Your task to perform on an android device: Open Google Chrome Image 0: 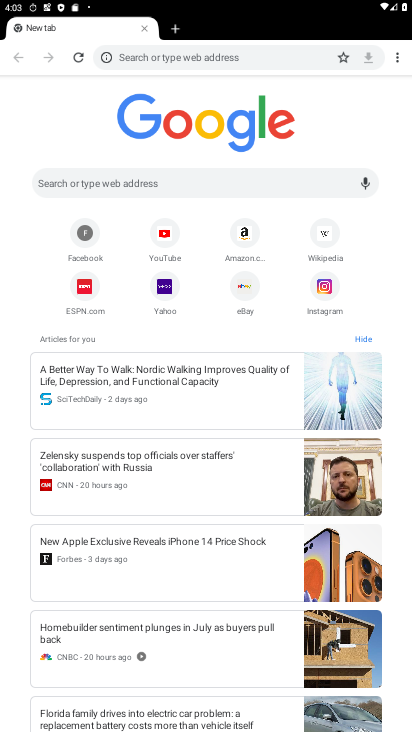
Step 0: press home button
Your task to perform on an android device: Open Google Chrome Image 1: 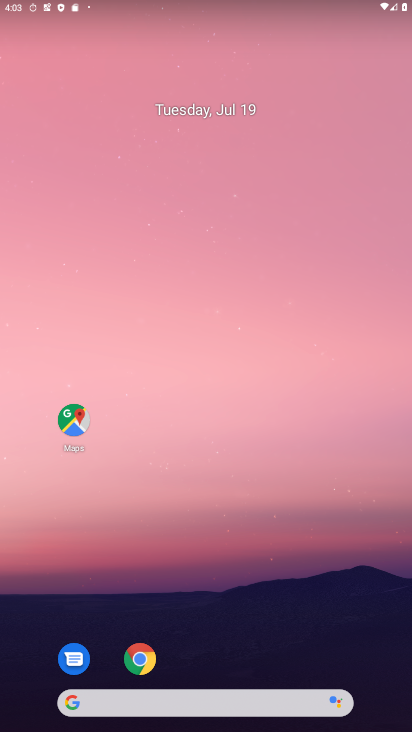
Step 1: drag from (304, 610) to (343, 81)
Your task to perform on an android device: Open Google Chrome Image 2: 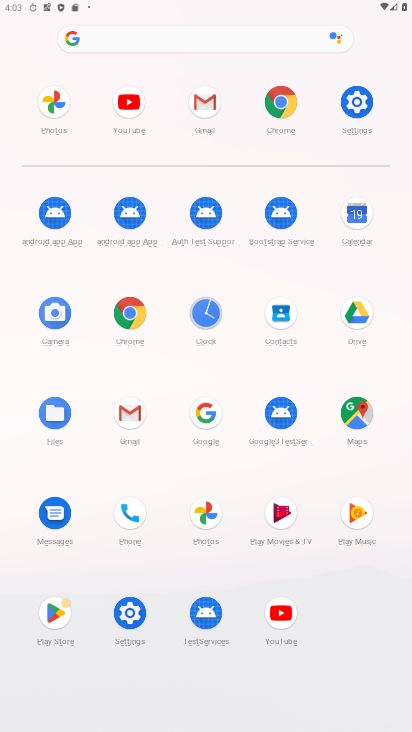
Step 2: click (284, 109)
Your task to perform on an android device: Open Google Chrome Image 3: 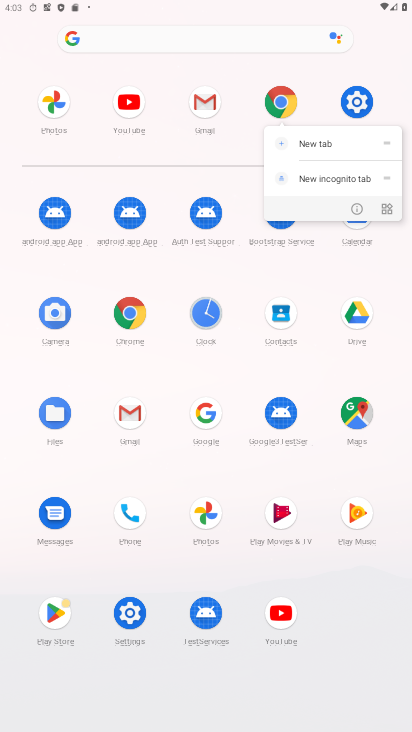
Step 3: click (284, 108)
Your task to perform on an android device: Open Google Chrome Image 4: 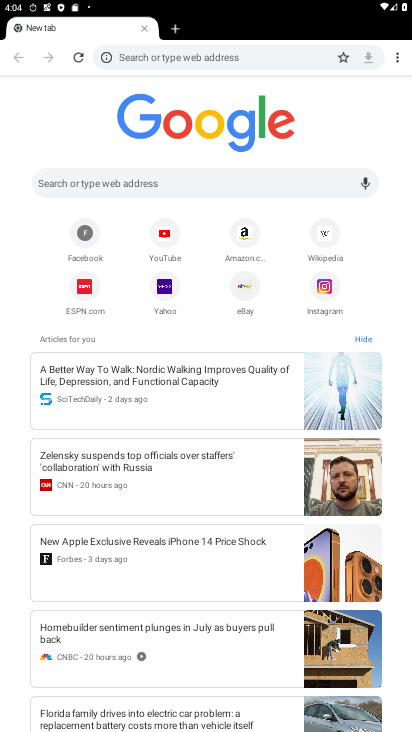
Step 4: task complete